Your task to perform on an android device: Is it going to rain this weekend? Image 0: 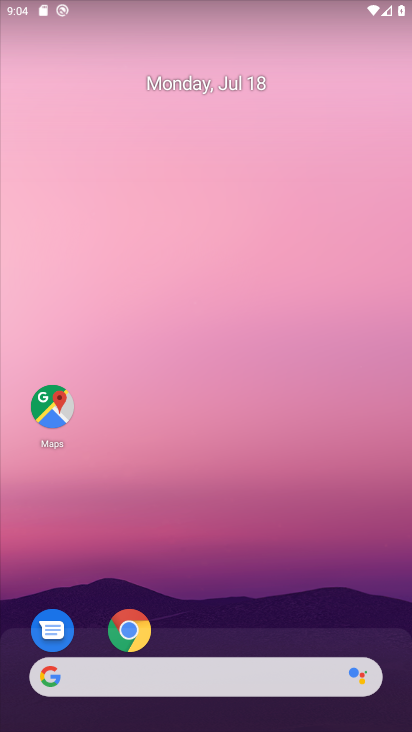
Step 0: drag from (185, 666) to (233, 130)
Your task to perform on an android device: Is it going to rain this weekend? Image 1: 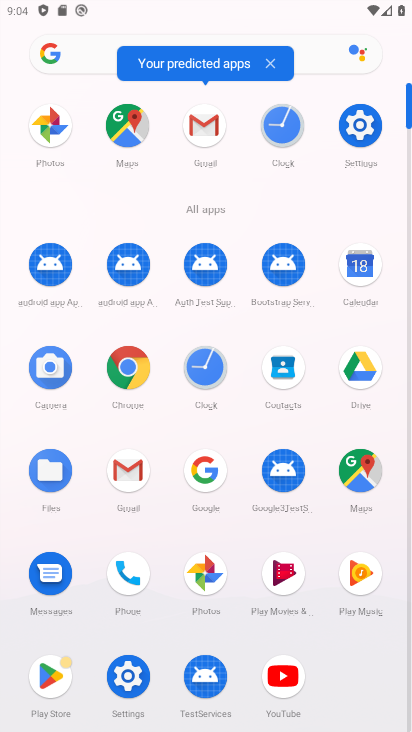
Step 1: click (128, 377)
Your task to perform on an android device: Is it going to rain this weekend? Image 2: 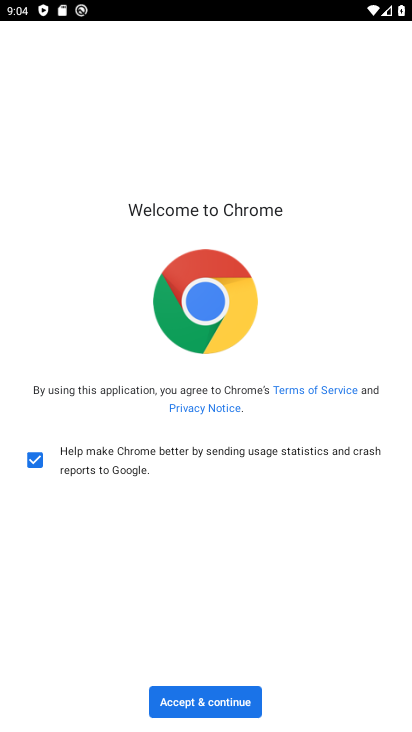
Step 2: click (204, 707)
Your task to perform on an android device: Is it going to rain this weekend? Image 3: 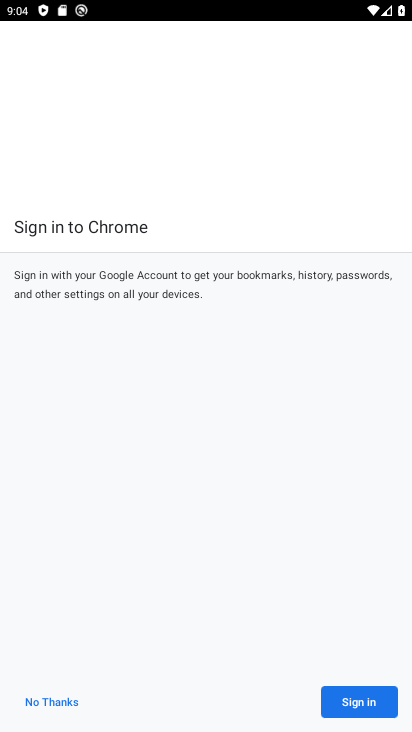
Step 3: click (332, 694)
Your task to perform on an android device: Is it going to rain this weekend? Image 4: 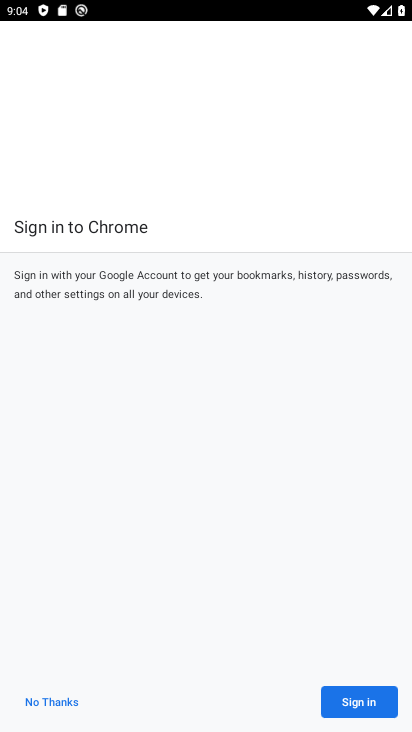
Step 4: click (387, 702)
Your task to perform on an android device: Is it going to rain this weekend? Image 5: 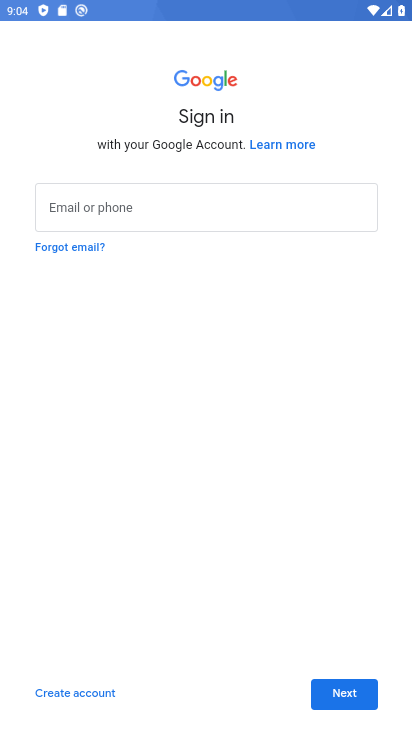
Step 5: press back button
Your task to perform on an android device: Is it going to rain this weekend? Image 6: 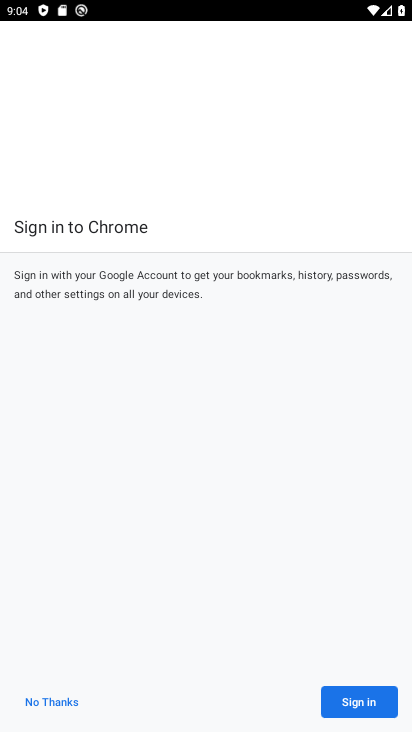
Step 6: click (42, 689)
Your task to perform on an android device: Is it going to rain this weekend? Image 7: 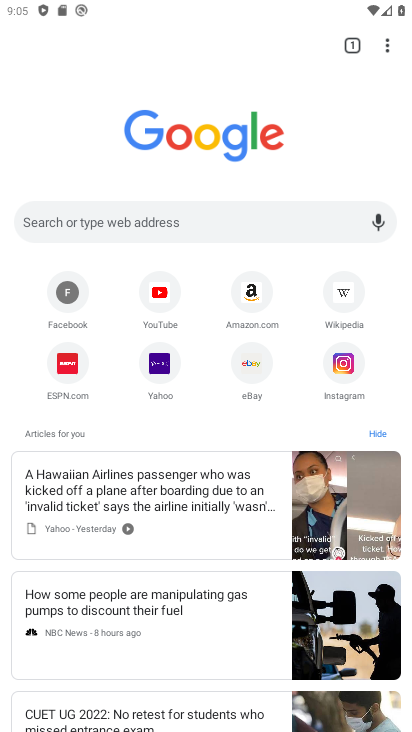
Step 7: click (167, 224)
Your task to perform on an android device: Is it going to rain this weekend? Image 8: 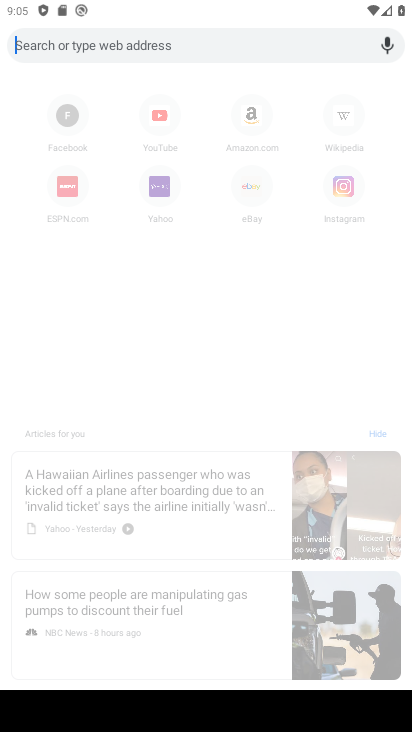
Step 8: type "Is it going to rain this weekend?"
Your task to perform on an android device: Is it going to rain this weekend? Image 9: 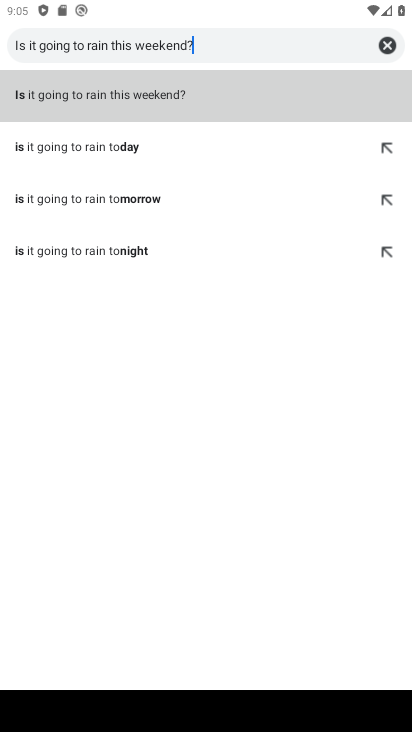
Step 9: type ""
Your task to perform on an android device: Is it going to rain this weekend? Image 10: 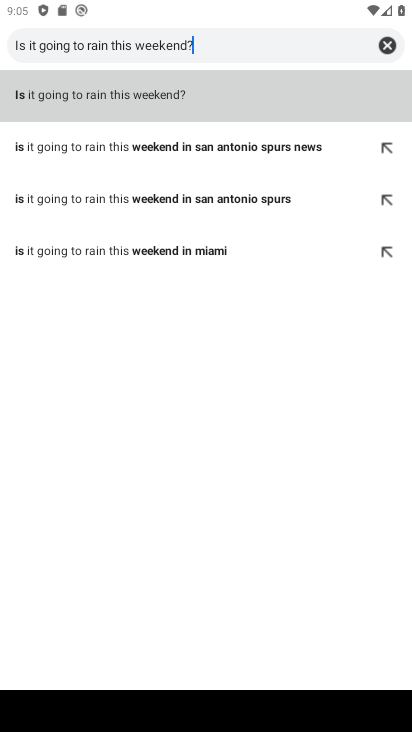
Step 10: click (161, 102)
Your task to perform on an android device: Is it going to rain this weekend? Image 11: 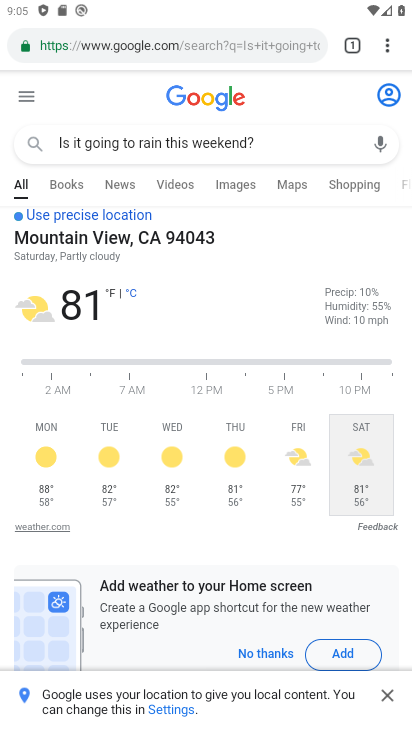
Step 11: task complete